Your task to perform on an android device: Turn on the flashlight Image 0: 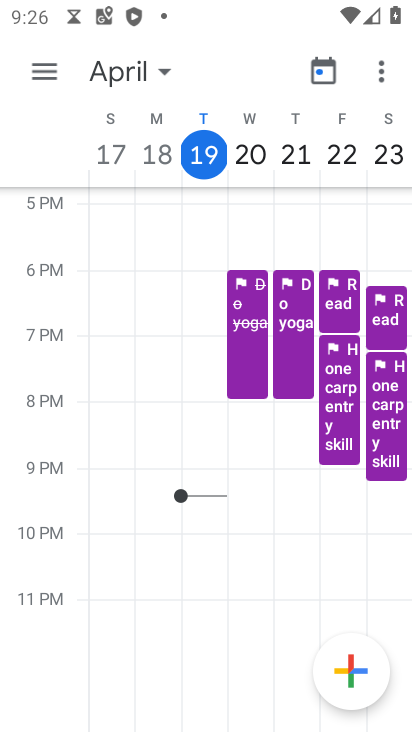
Step 0: press home button
Your task to perform on an android device: Turn on the flashlight Image 1: 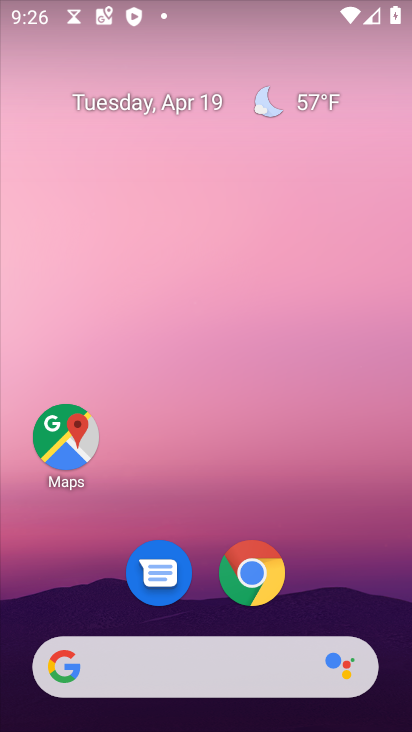
Step 1: drag from (333, 432) to (320, 14)
Your task to perform on an android device: Turn on the flashlight Image 2: 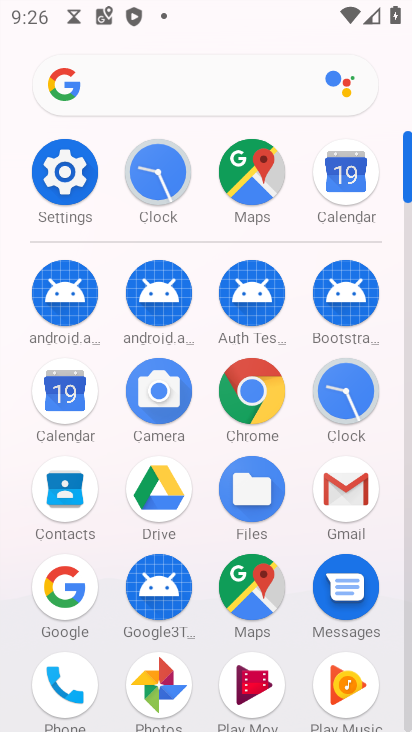
Step 2: click (70, 178)
Your task to perform on an android device: Turn on the flashlight Image 3: 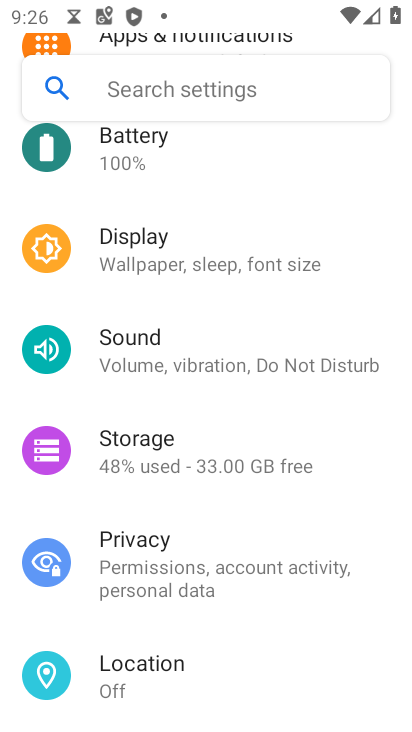
Step 3: drag from (308, 622) to (342, 197)
Your task to perform on an android device: Turn on the flashlight Image 4: 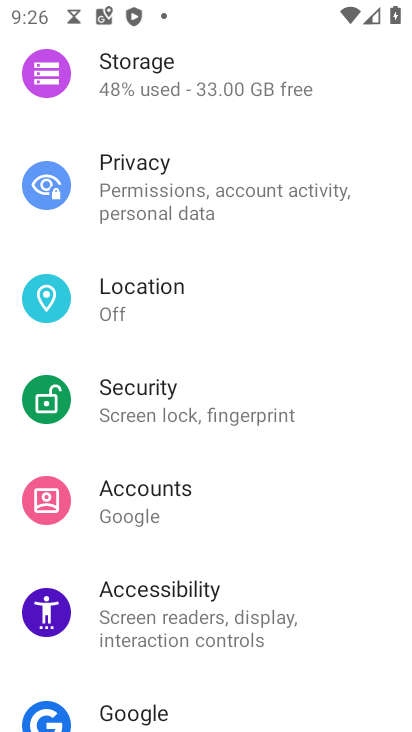
Step 4: drag from (299, 614) to (341, 177)
Your task to perform on an android device: Turn on the flashlight Image 5: 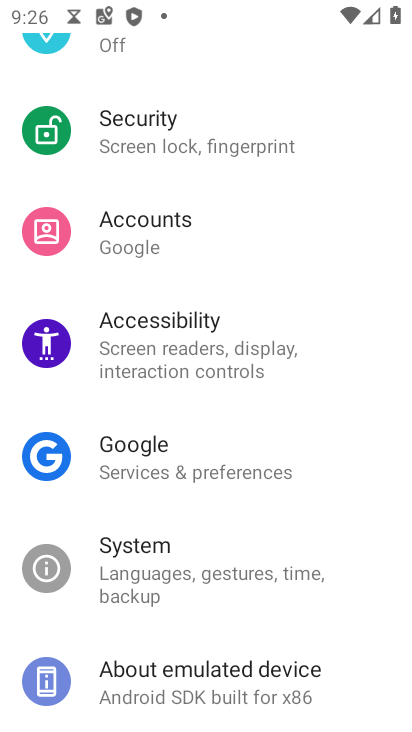
Step 5: click (241, 573)
Your task to perform on an android device: Turn on the flashlight Image 6: 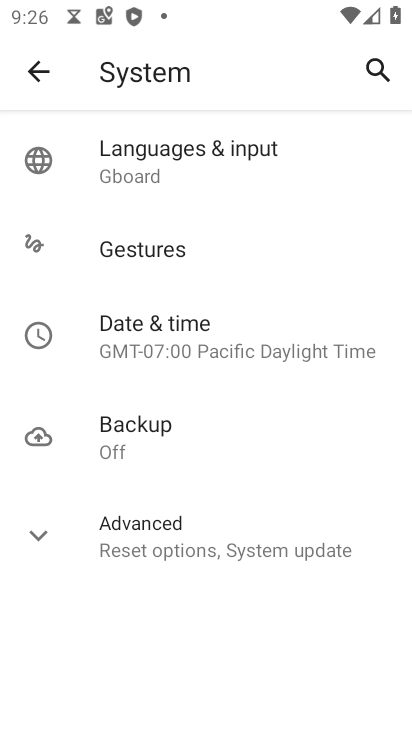
Step 6: click (178, 244)
Your task to perform on an android device: Turn on the flashlight Image 7: 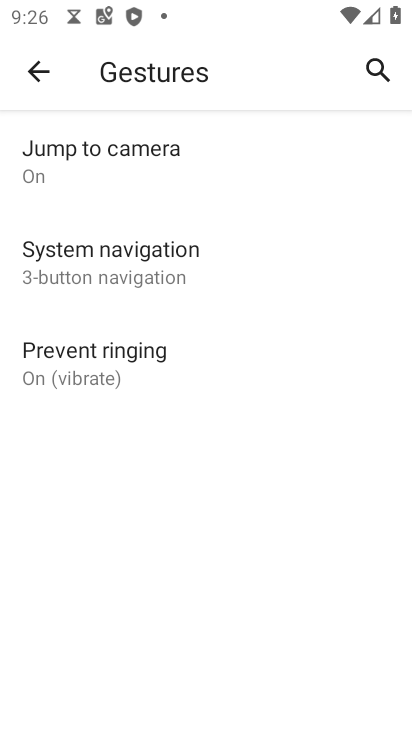
Step 7: task complete